Your task to perform on an android device: install app "Pinterest" Image 0: 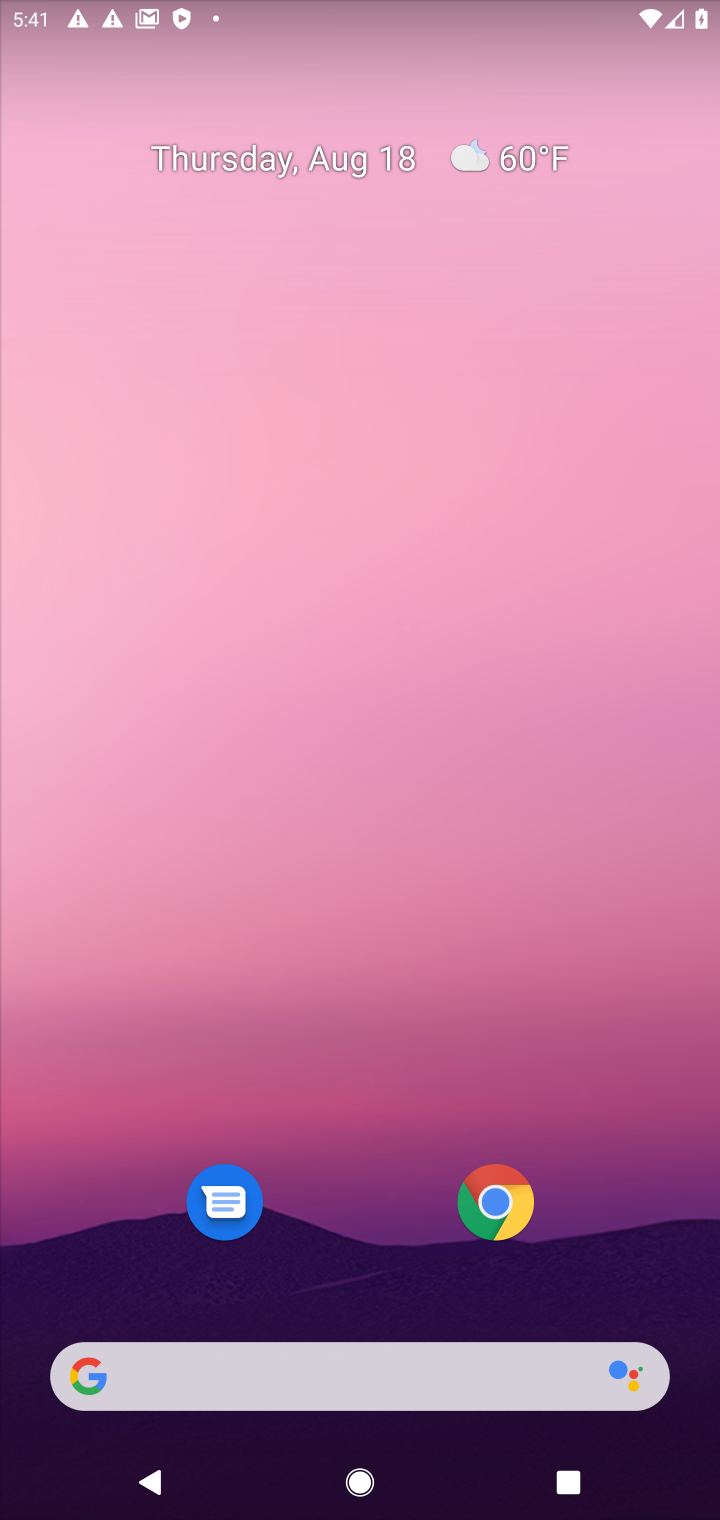
Step 0: drag from (434, 725) to (274, 1)
Your task to perform on an android device: install app "Pinterest" Image 1: 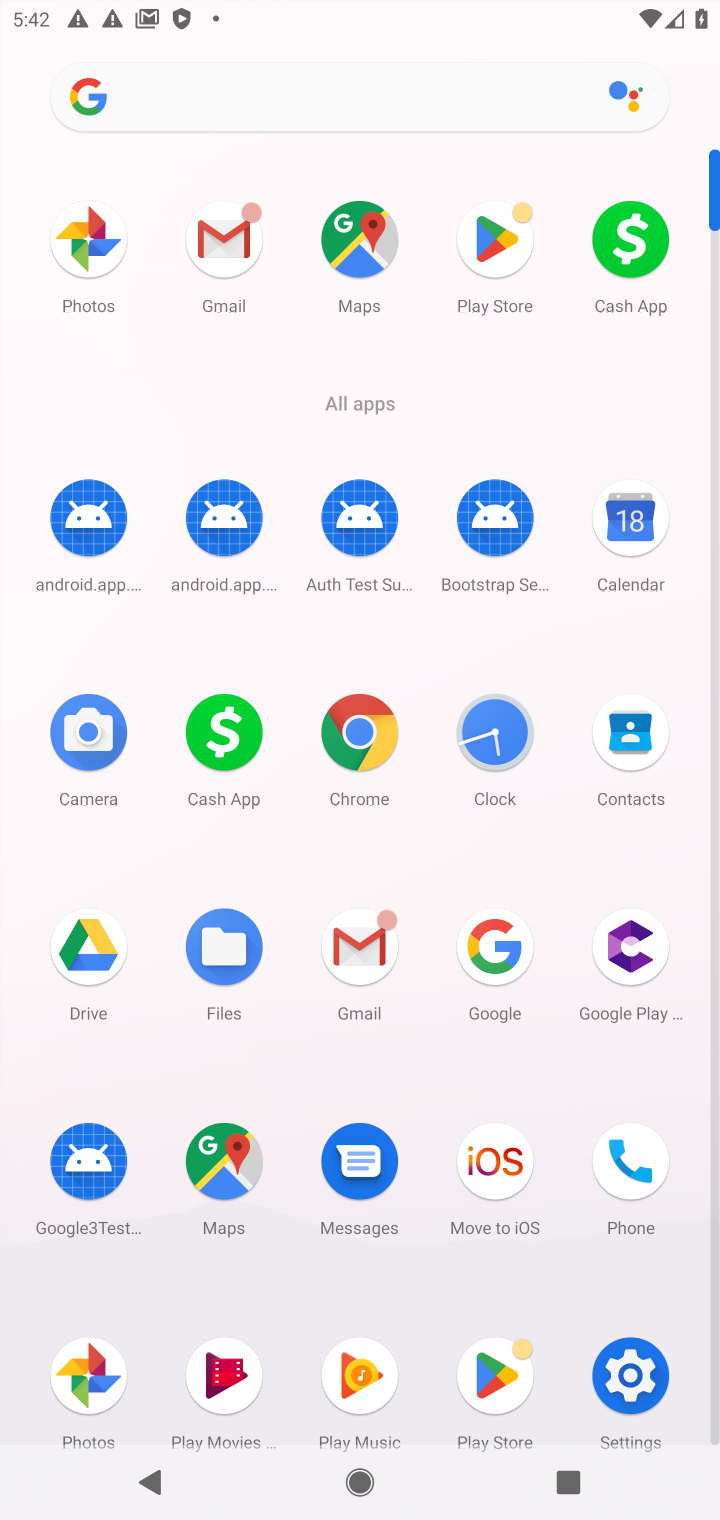
Step 1: click (527, 252)
Your task to perform on an android device: install app "Pinterest" Image 2: 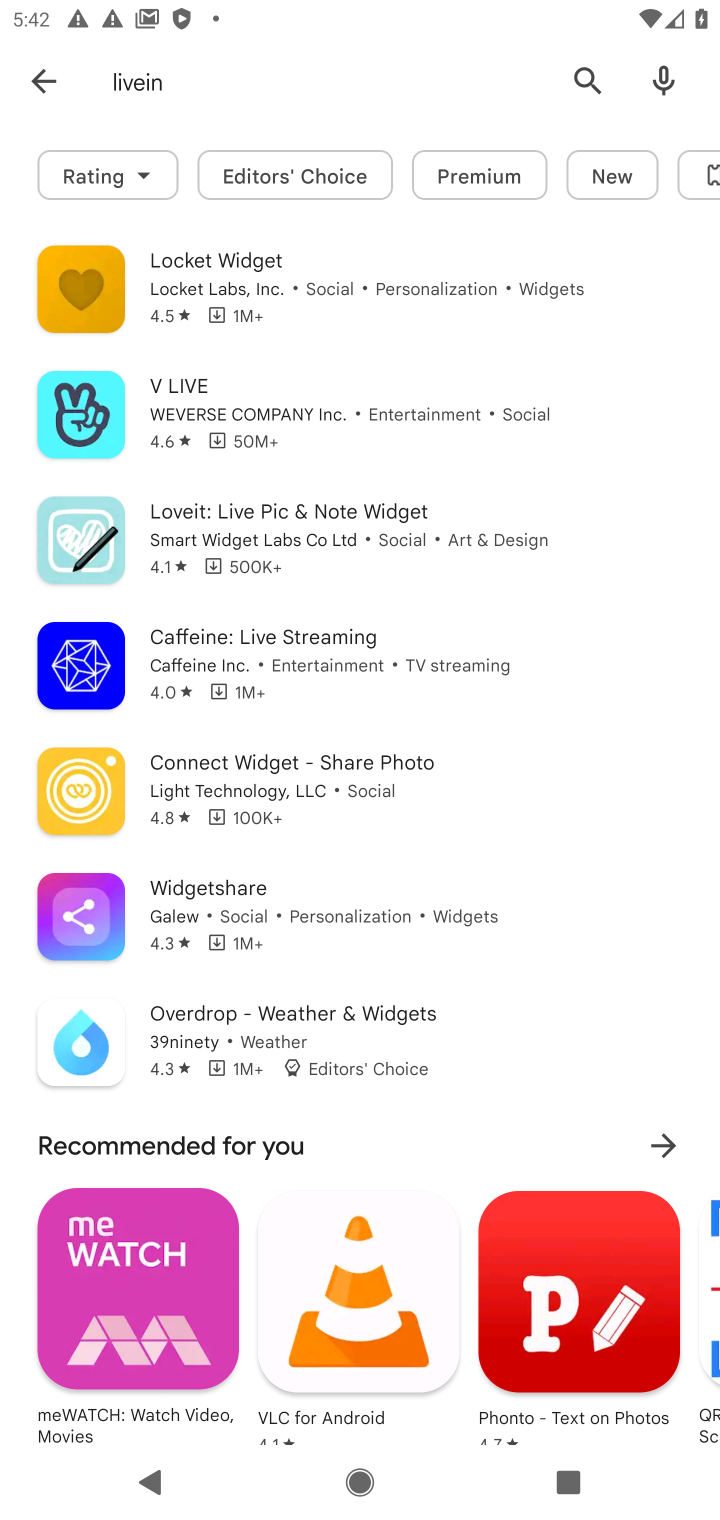
Step 2: click (580, 75)
Your task to perform on an android device: install app "Pinterest" Image 3: 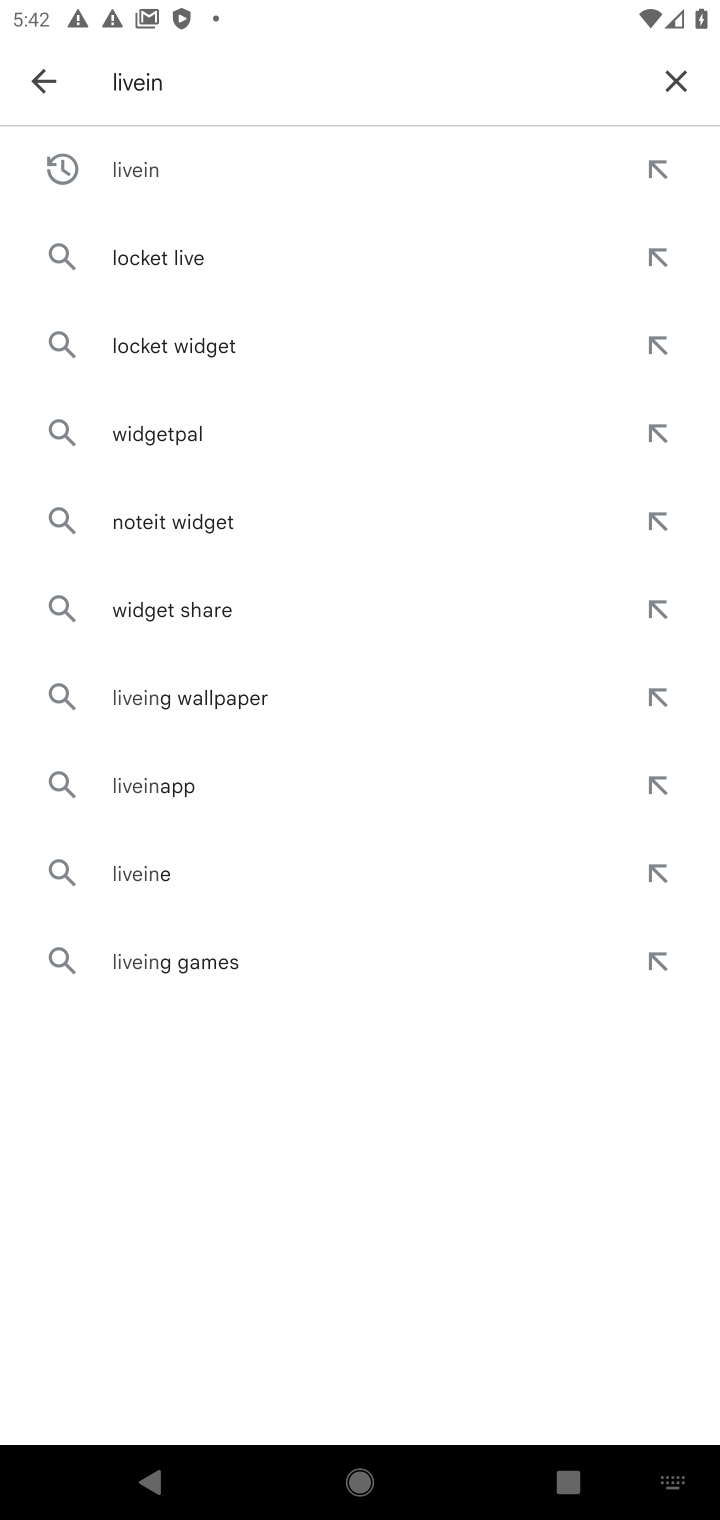
Step 3: click (675, 94)
Your task to perform on an android device: install app "Pinterest" Image 4: 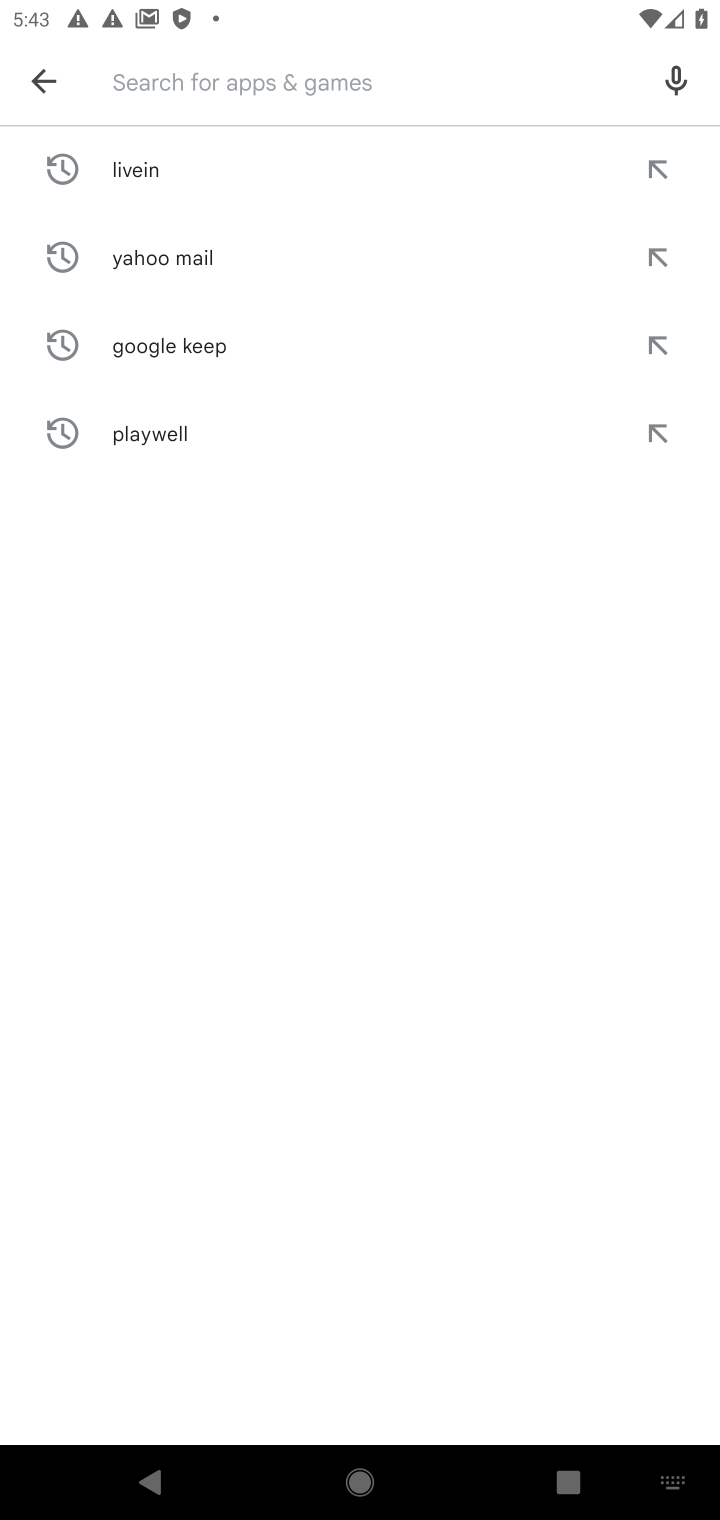
Step 4: click (447, 78)
Your task to perform on an android device: install app "Pinterest" Image 5: 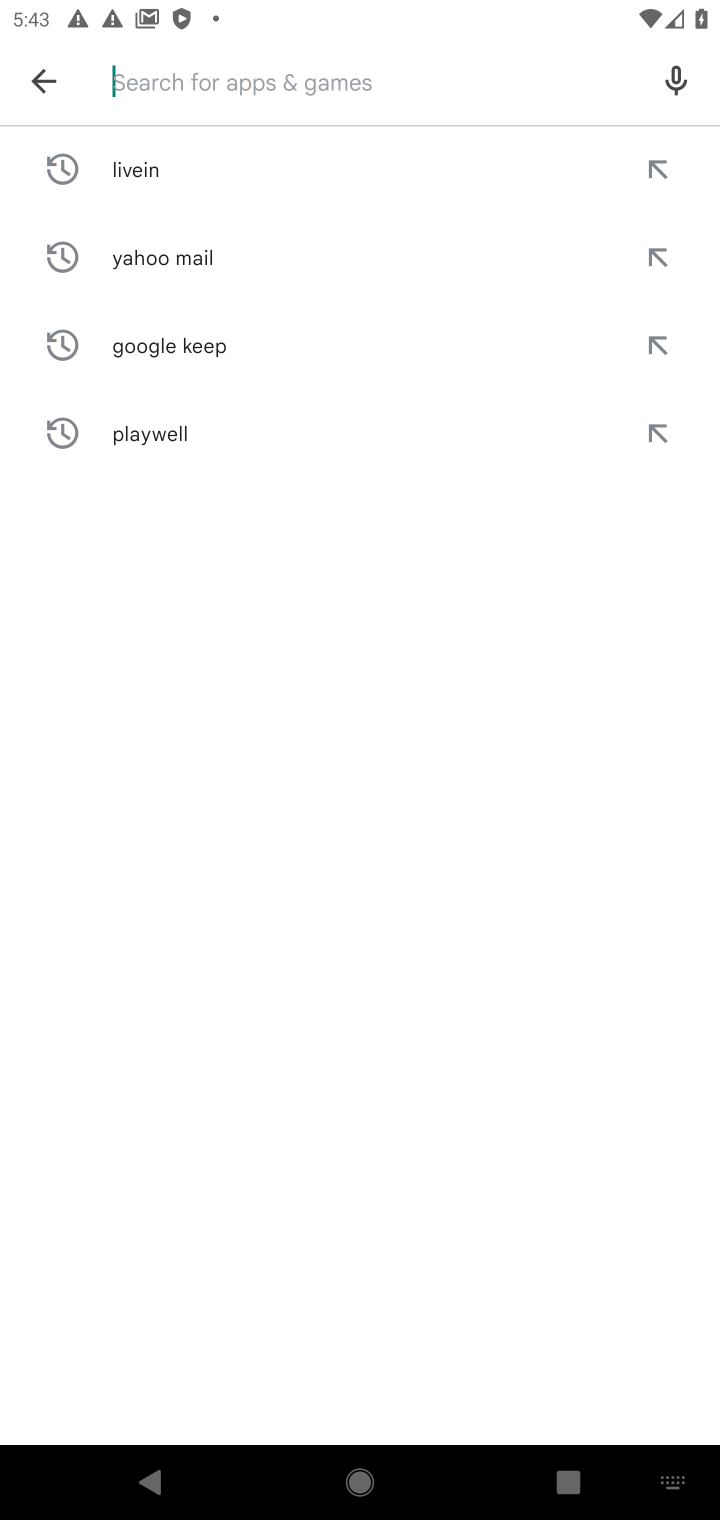
Step 5: type "pinterest"
Your task to perform on an android device: install app "Pinterest" Image 6: 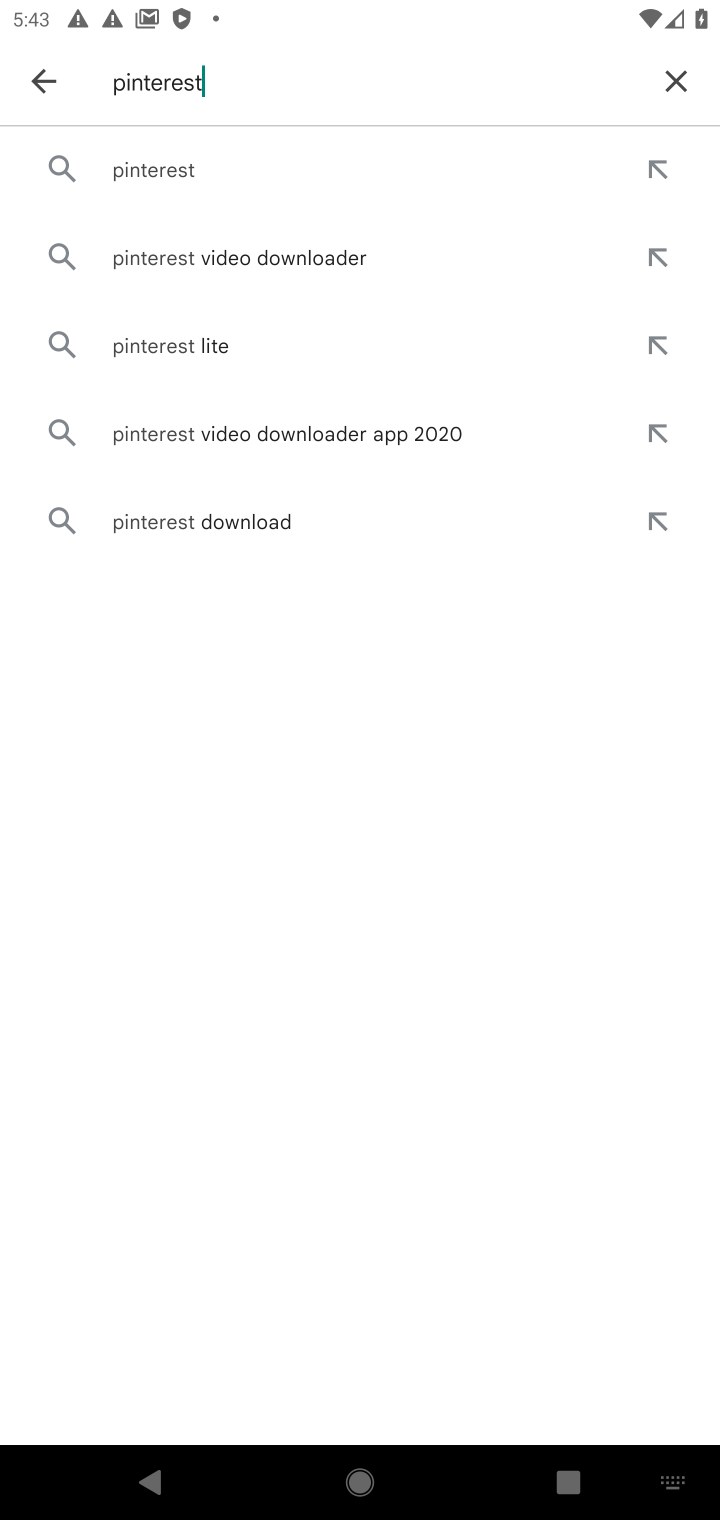
Step 6: click (169, 163)
Your task to perform on an android device: install app "Pinterest" Image 7: 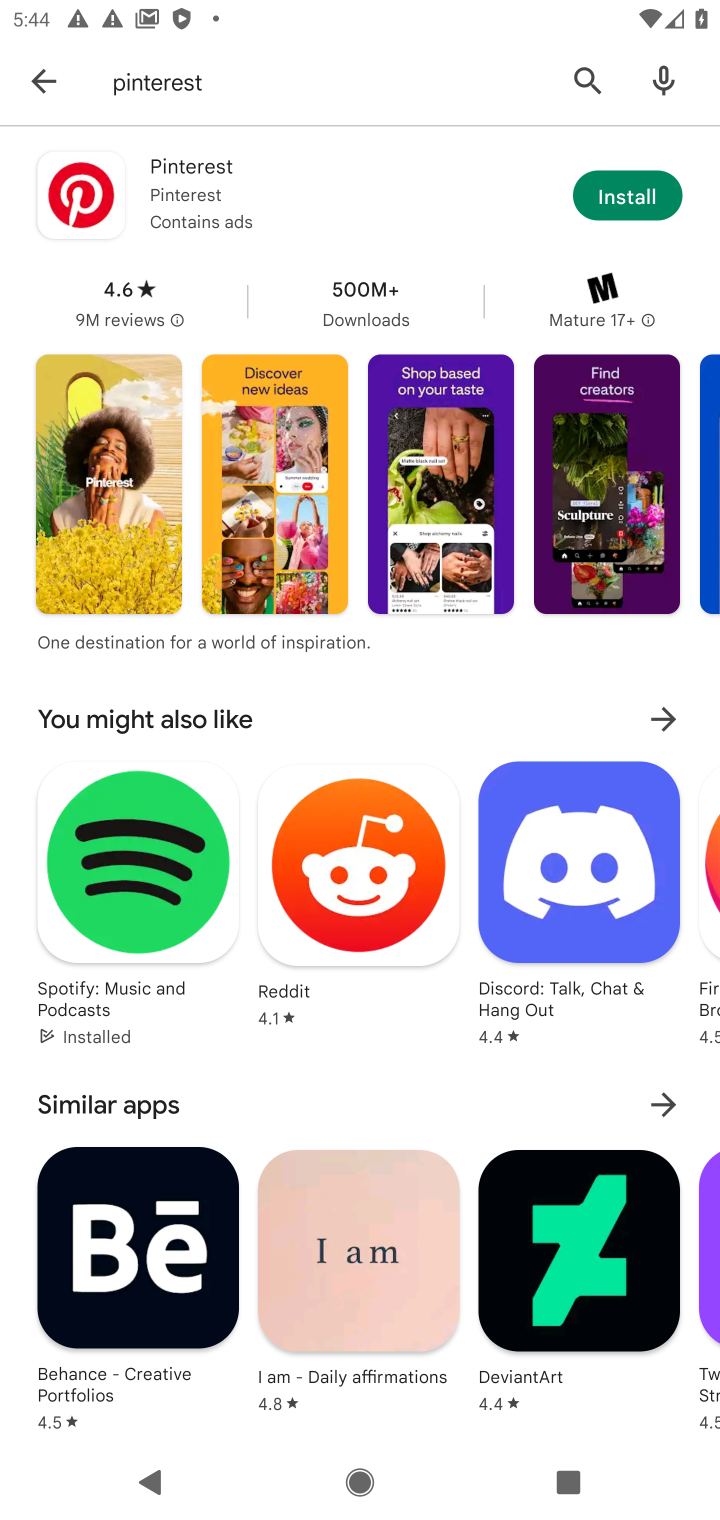
Step 7: click (638, 185)
Your task to perform on an android device: install app "Pinterest" Image 8: 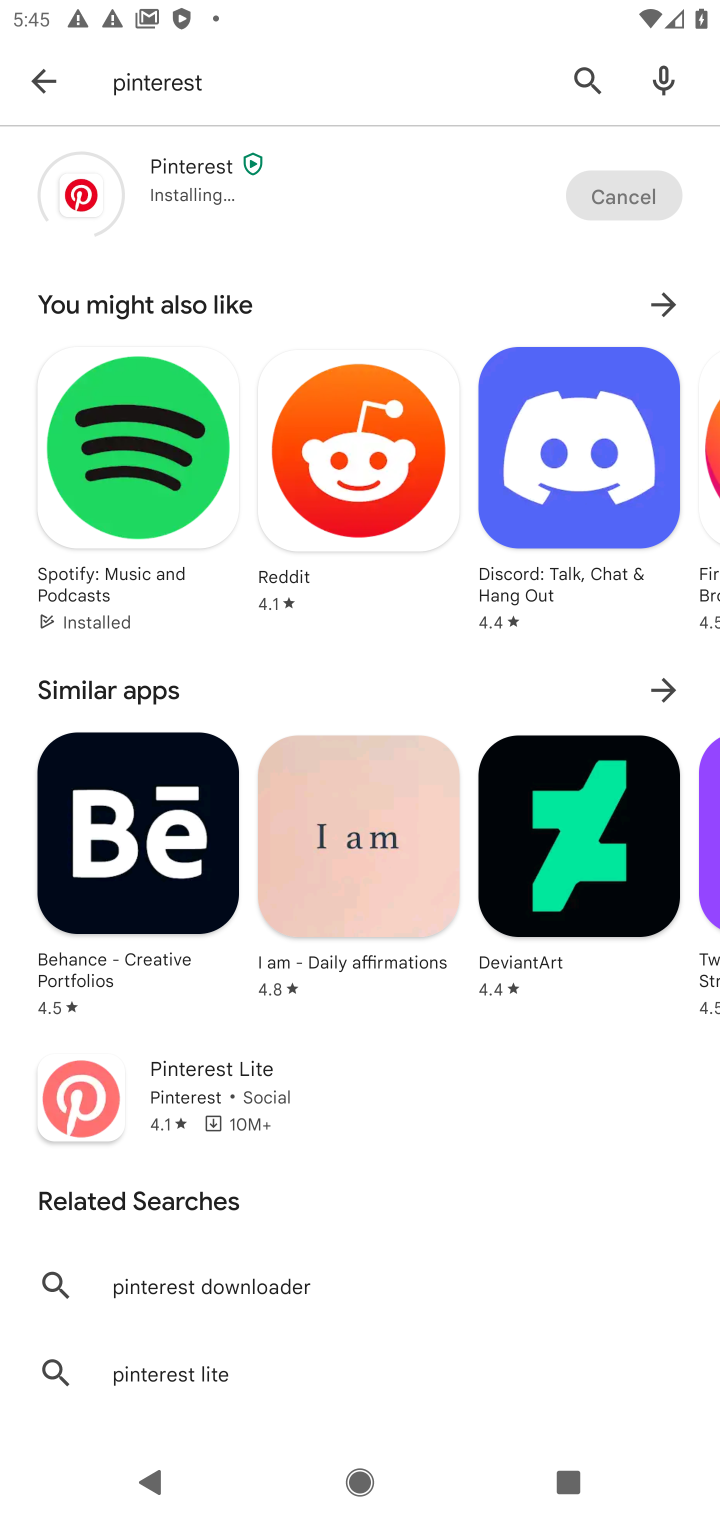
Step 8: task complete